Your task to perform on an android device: set the timer Image 0: 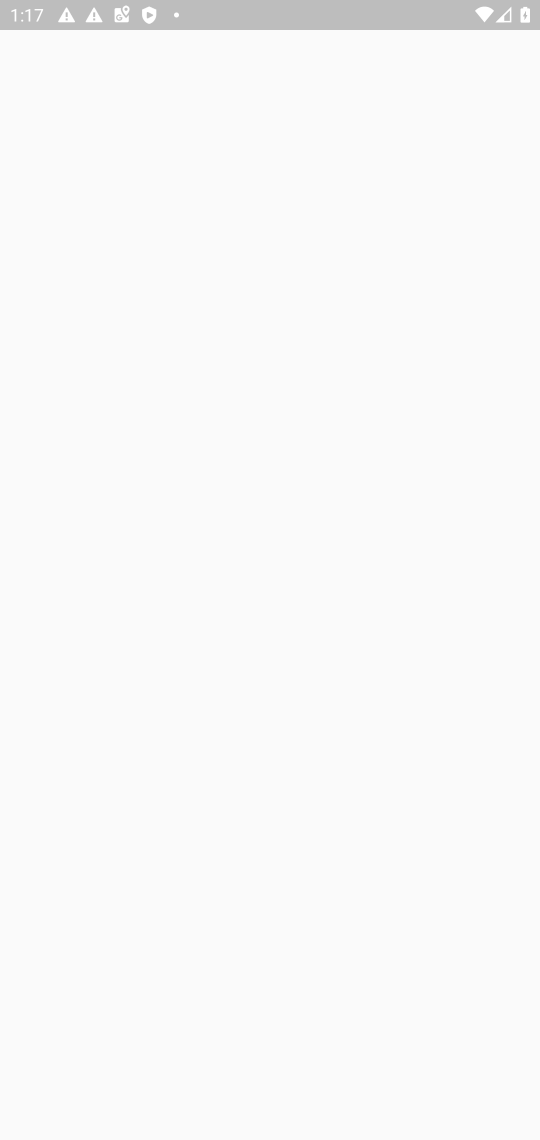
Step 0: press home button
Your task to perform on an android device: set the timer Image 1: 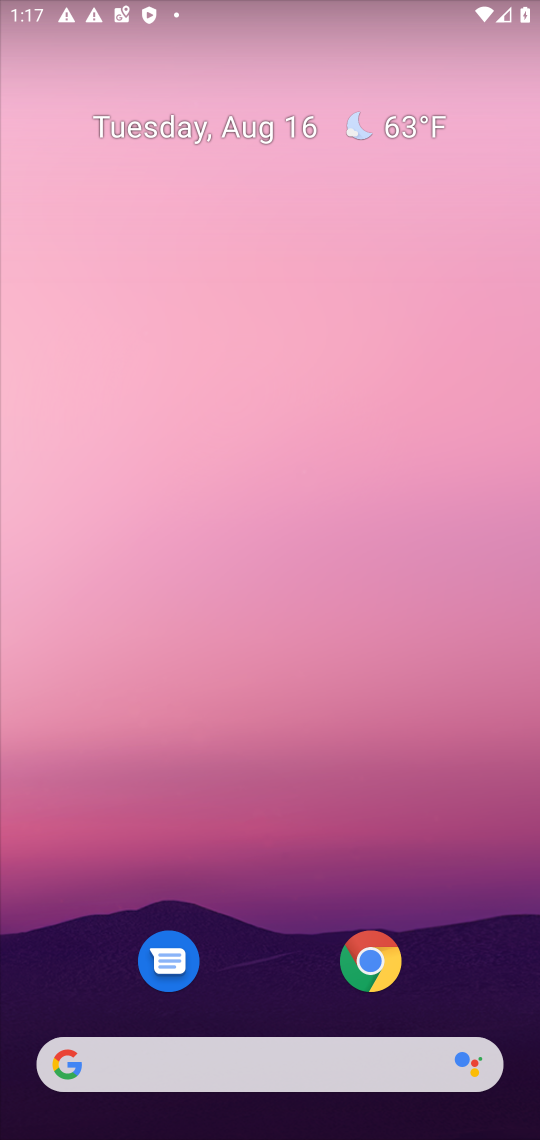
Step 1: drag from (386, 727) to (140, 114)
Your task to perform on an android device: set the timer Image 2: 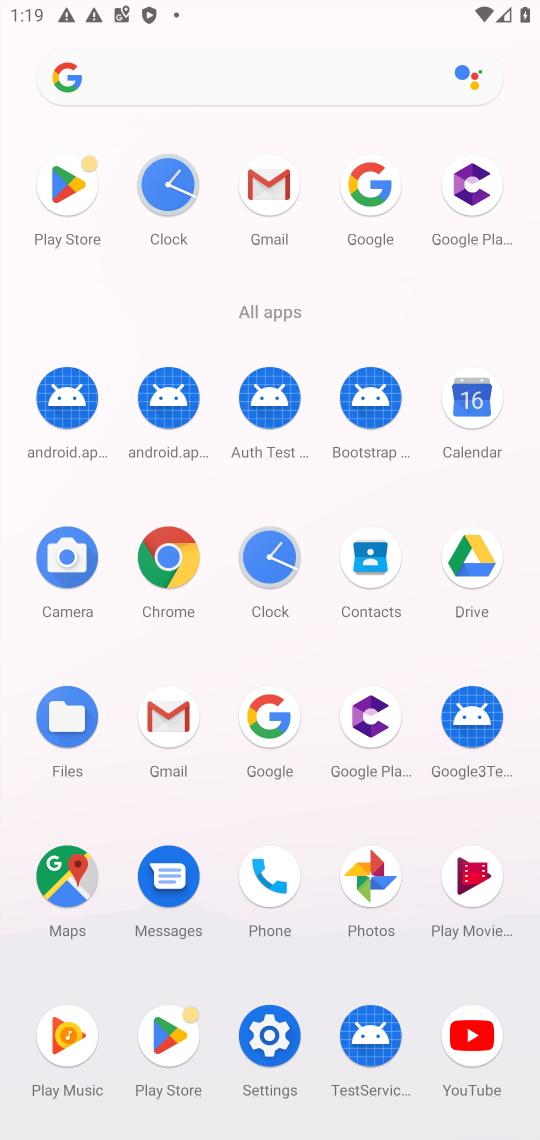
Step 2: click (270, 580)
Your task to perform on an android device: set the timer Image 3: 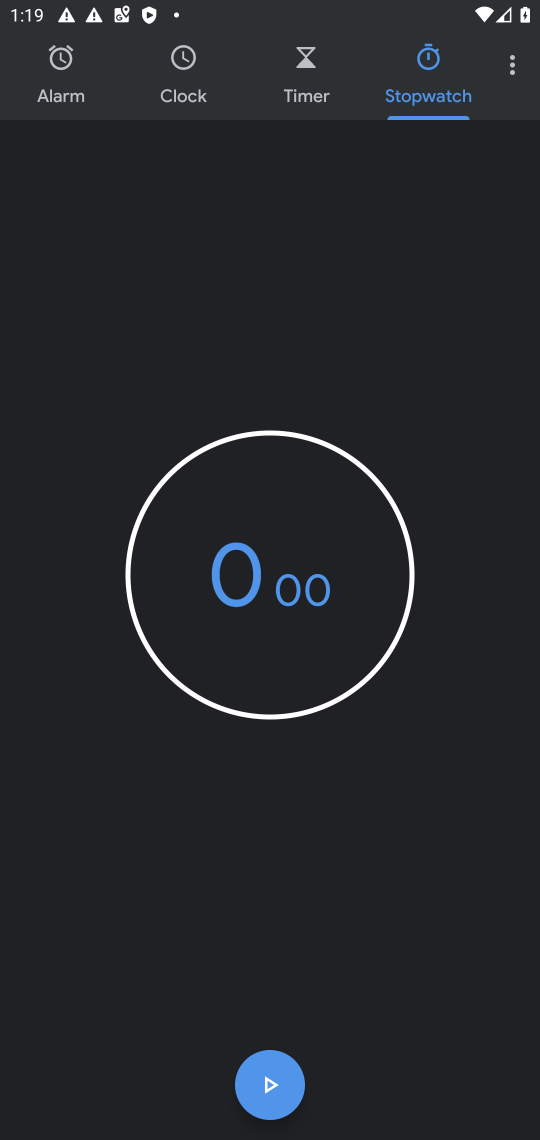
Step 3: click (270, 76)
Your task to perform on an android device: set the timer Image 4: 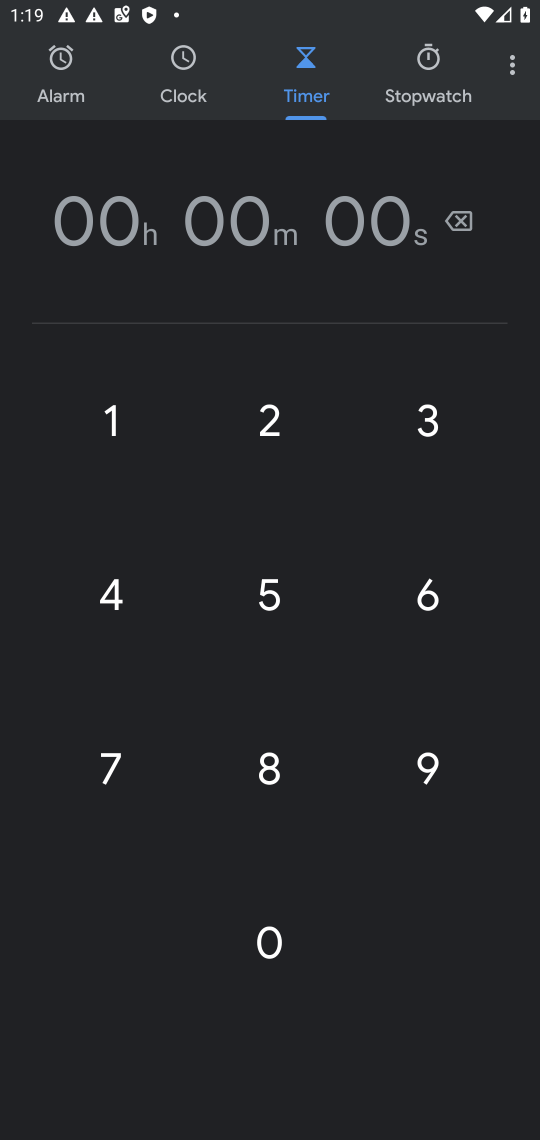
Step 4: click (257, 404)
Your task to perform on an android device: set the timer Image 5: 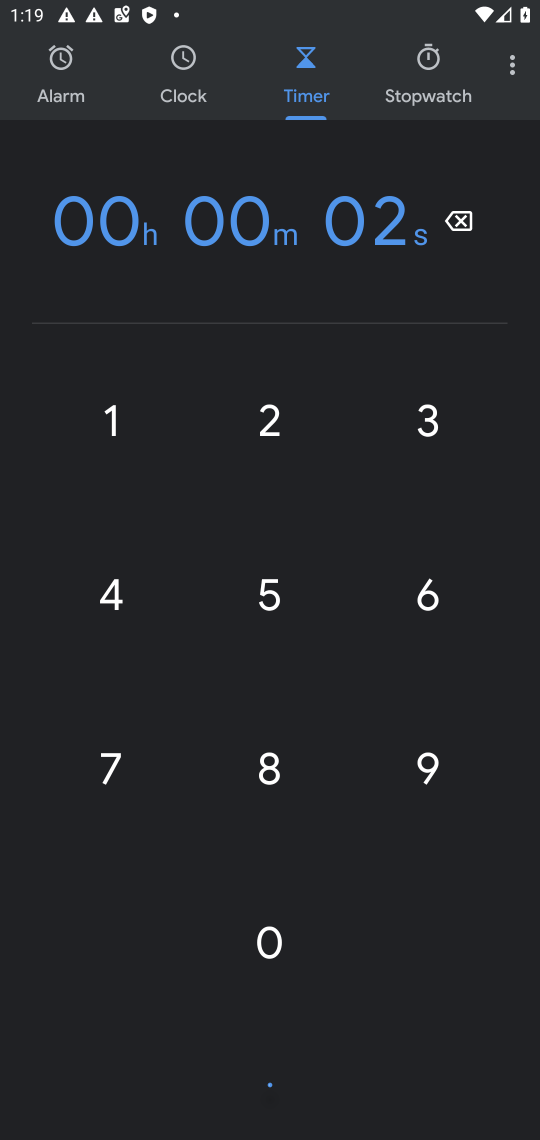
Step 5: click (292, 429)
Your task to perform on an android device: set the timer Image 6: 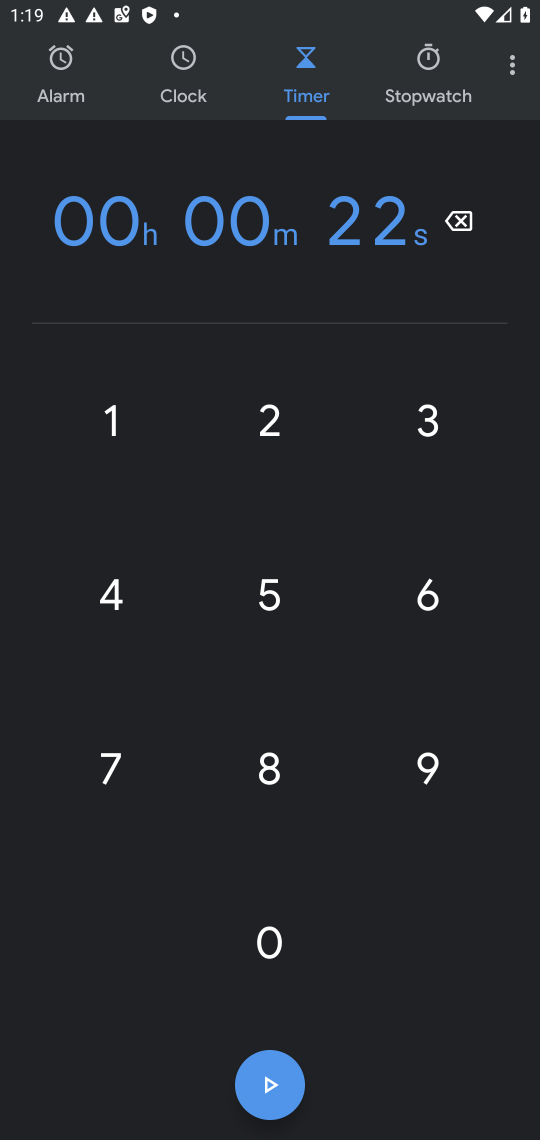
Step 6: click (292, 429)
Your task to perform on an android device: set the timer Image 7: 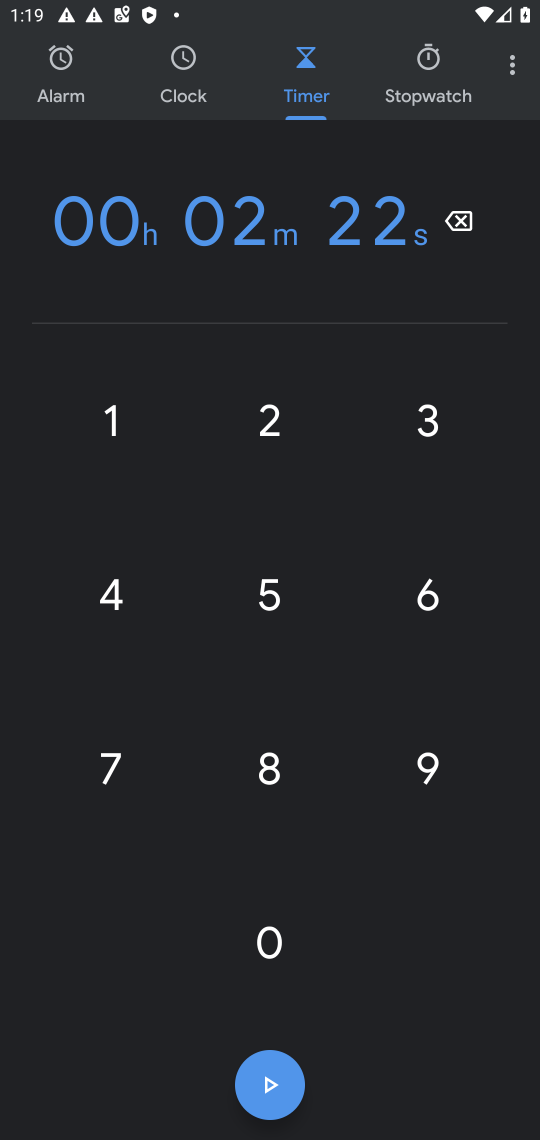
Step 7: click (292, 429)
Your task to perform on an android device: set the timer Image 8: 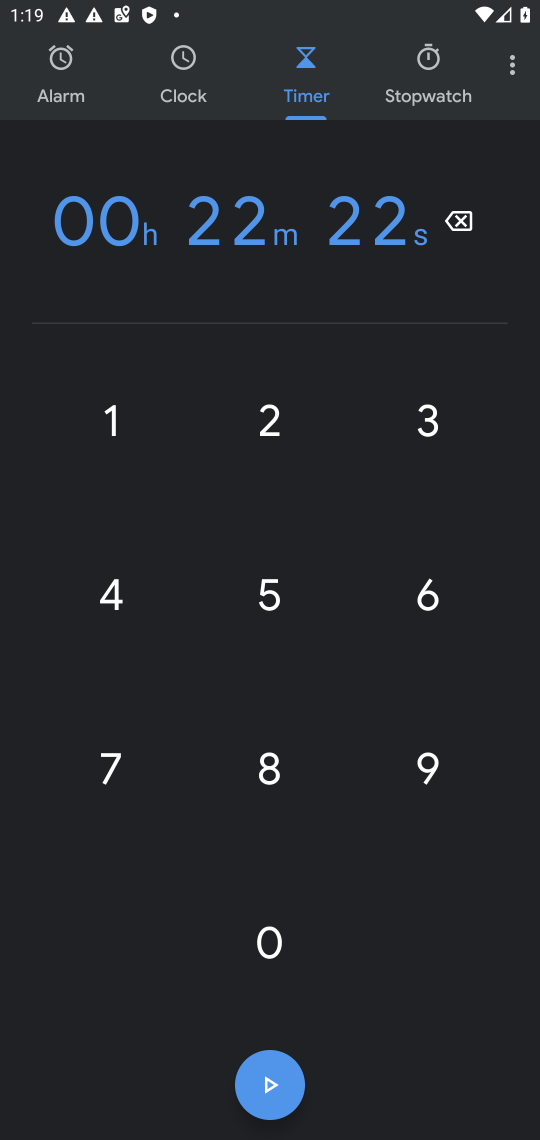
Step 8: click (292, 429)
Your task to perform on an android device: set the timer Image 9: 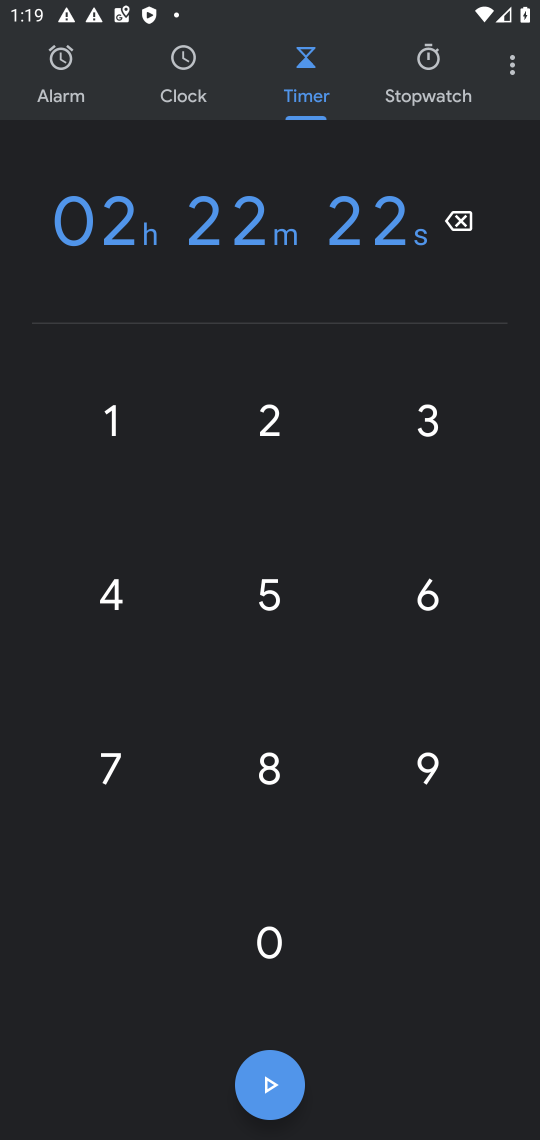
Step 9: task complete